Your task to perform on an android device: How much does the Sony TV cost? Image 0: 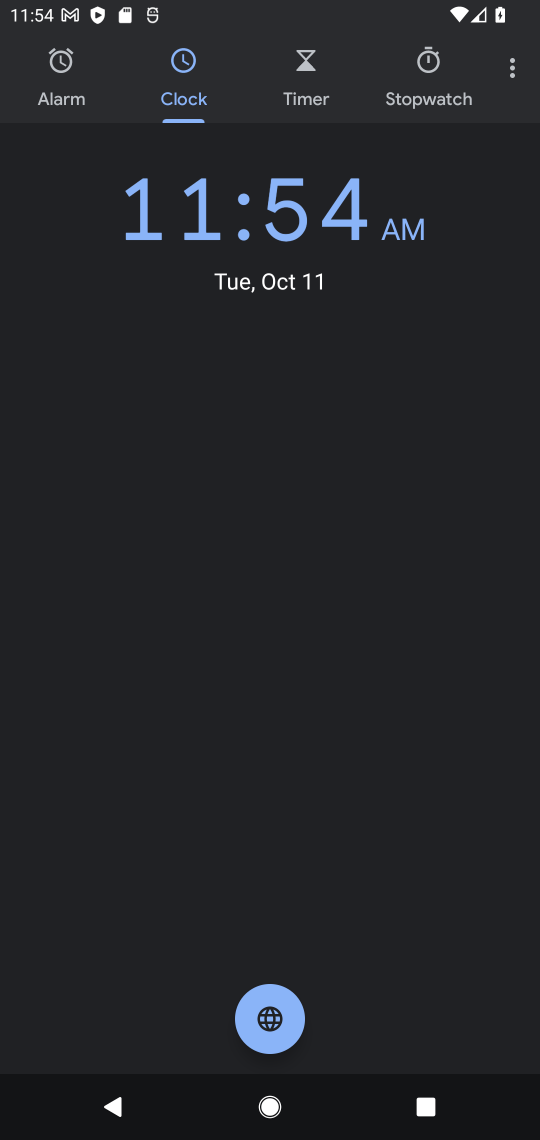
Step 0: press home button
Your task to perform on an android device: How much does the Sony TV cost? Image 1: 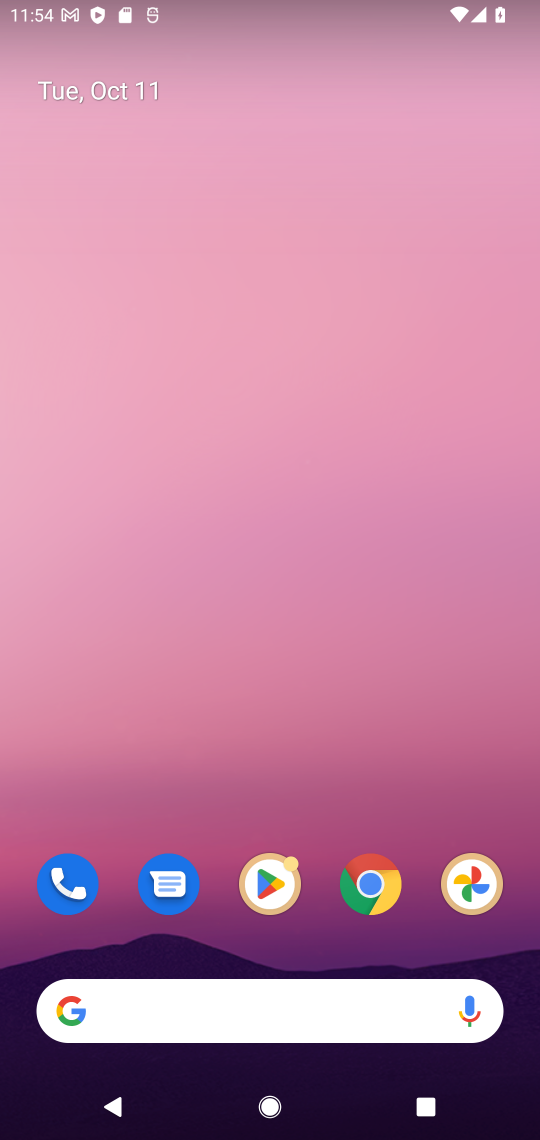
Step 1: drag from (279, 841) to (301, 318)
Your task to perform on an android device: How much does the Sony TV cost? Image 2: 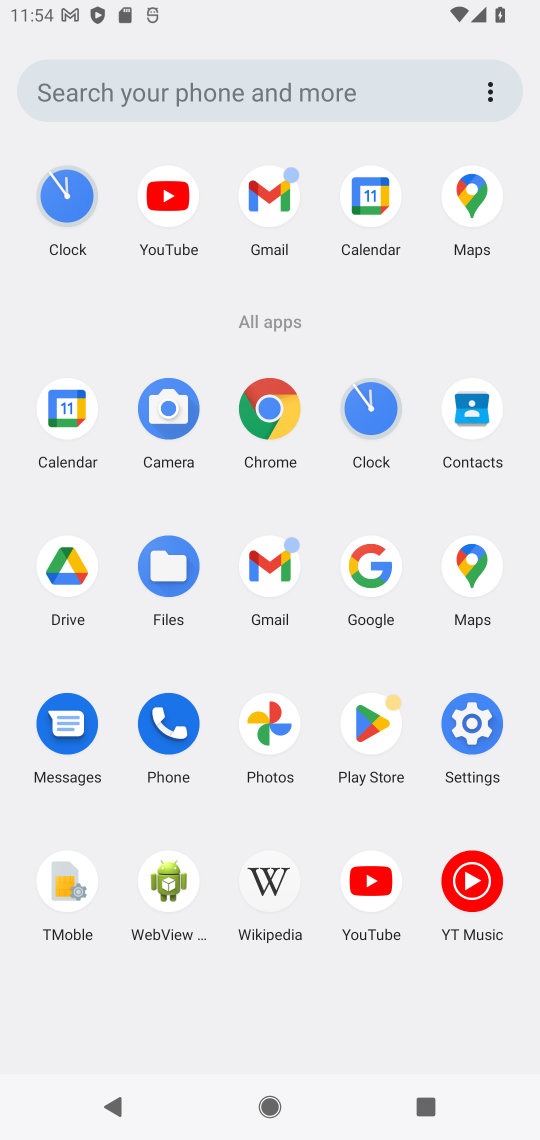
Step 2: click (356, 563)
Your task to perform on an android device: How much does the Sony TV cost? Image 3: 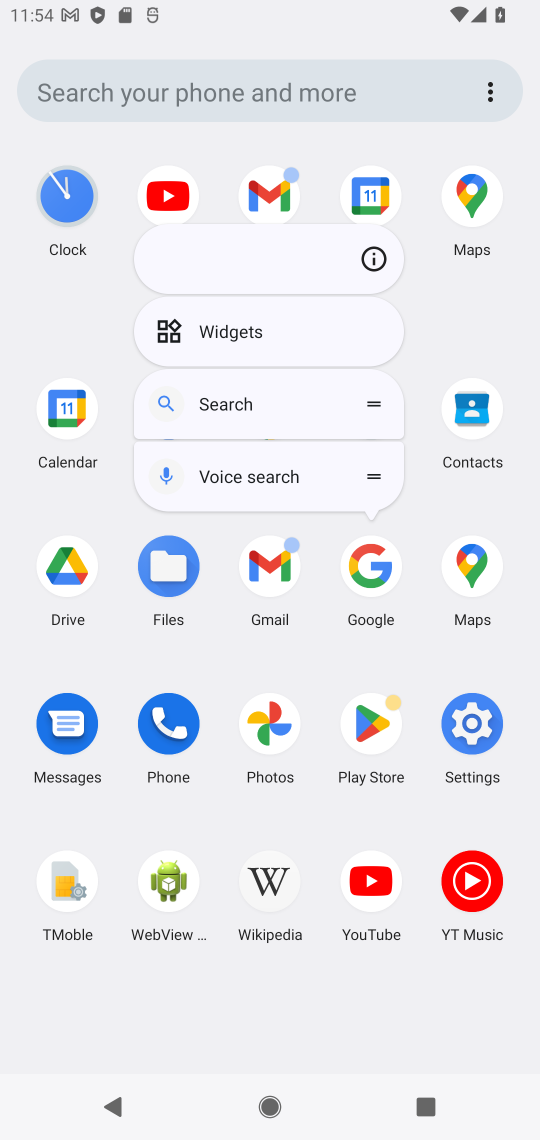
Step 3: click (379, 582)
Your task to perform on an android device: How much does the Sony TV cost? Image 4: 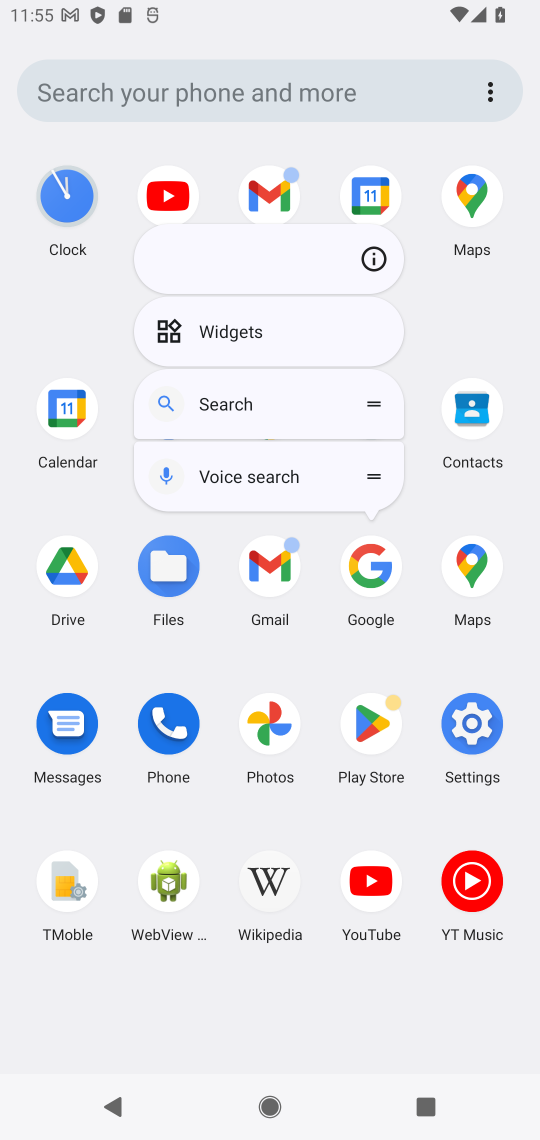
Step 4: click (378, 553)
Your task to perform on an android device: How much does the Sony TV cost? Image 5: 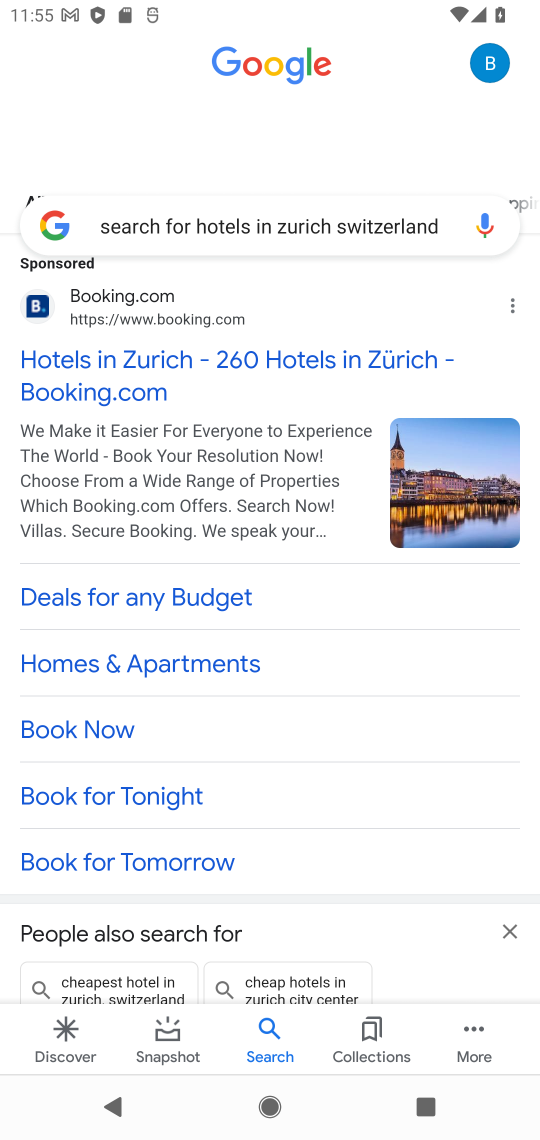
Step 5: click (386, 227)
Your task to perform on an android device: How much does the Sony TV cost? Image 6: 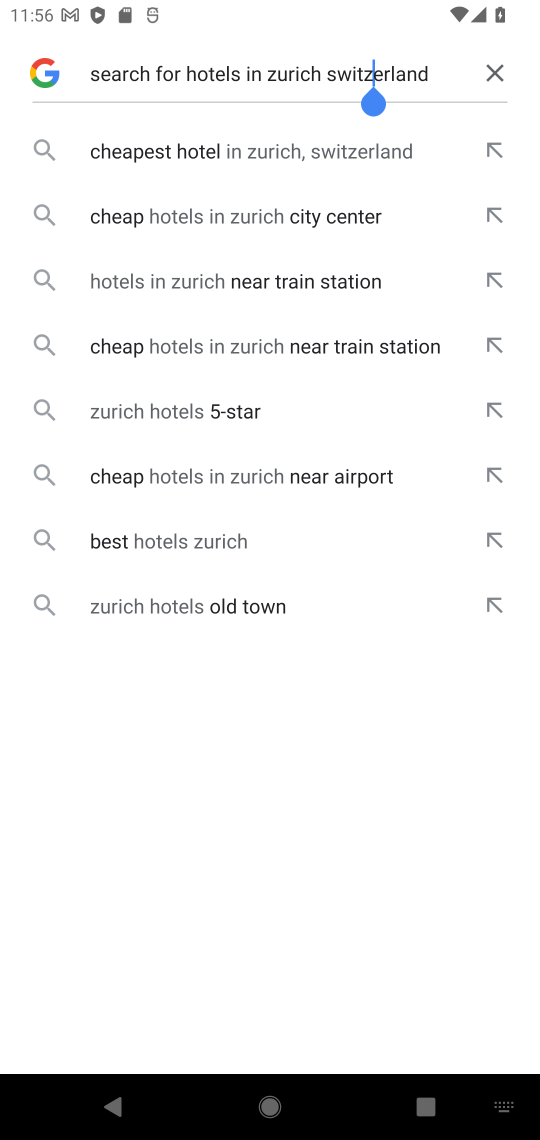
Step 6: click (505, 70)
Your task to perform on an android device: How much does the Sony TV cost? Image 7: 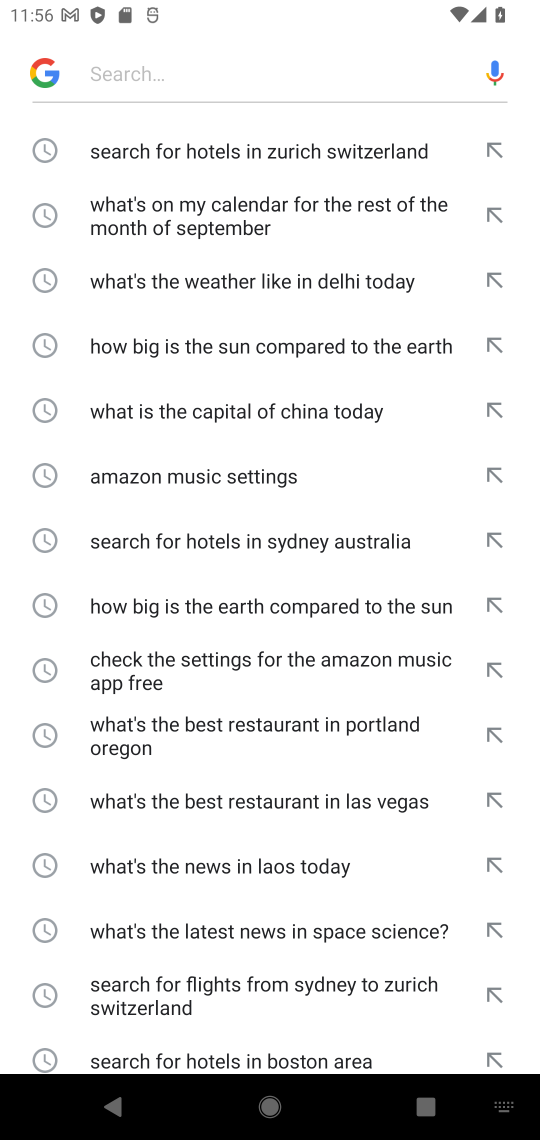
Step 7: type "How much does the Sony TV cost?"
Your task to perform on an android device: How much does the Sony TV cost? Image 8: 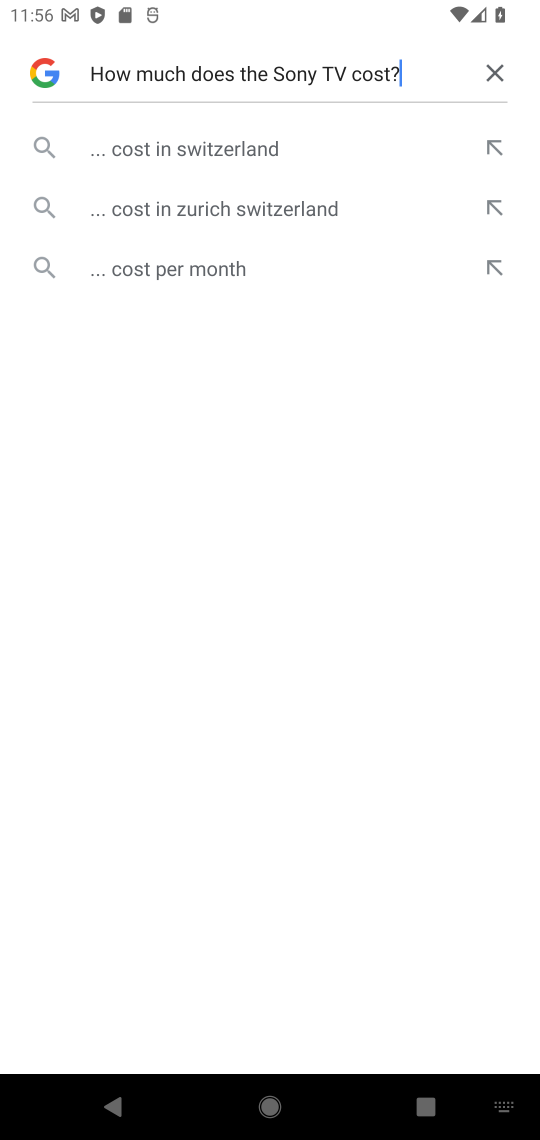
Step 8: click (218, 152)
Your task to perform on an android device: How much does the Sony TV cost? Image 9: 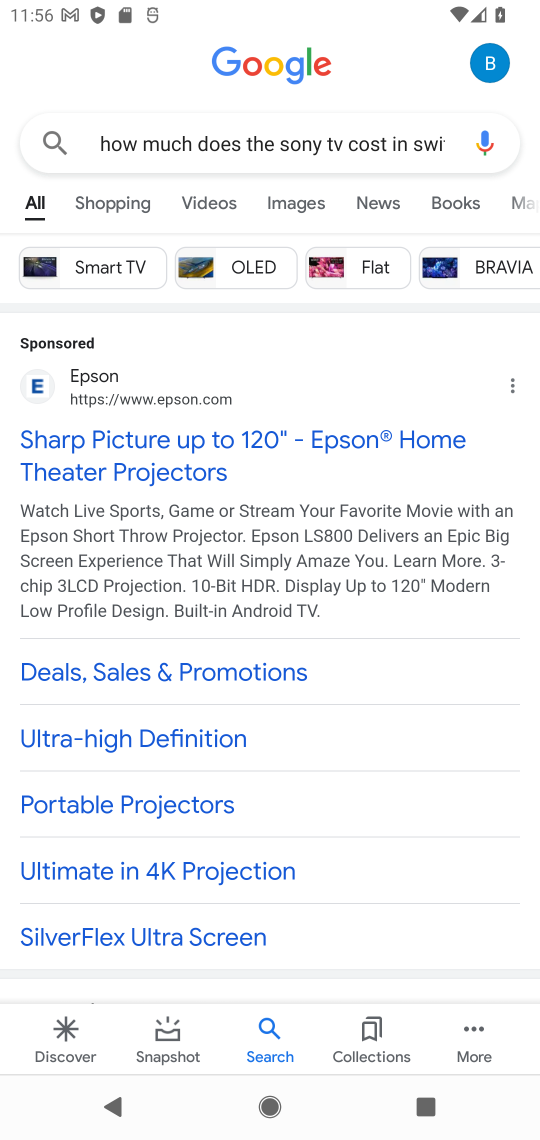
Step 9: task complete